Your task to perform on an android device: toggle translation in the chrome app Image 0: 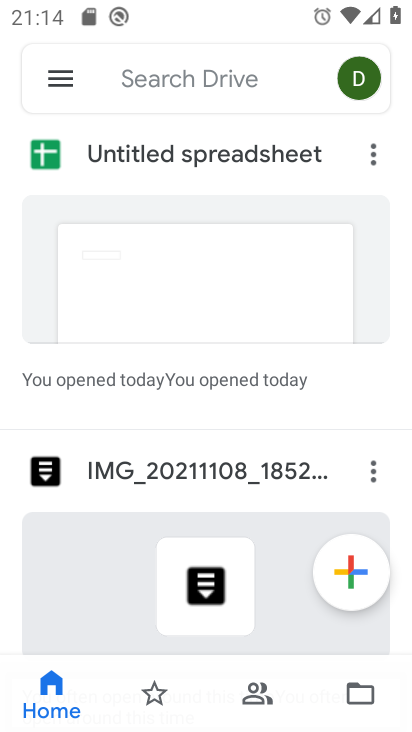
Step 0: press home button
Your task to perform on an android device: toggle translation in the chrome app Image 1: 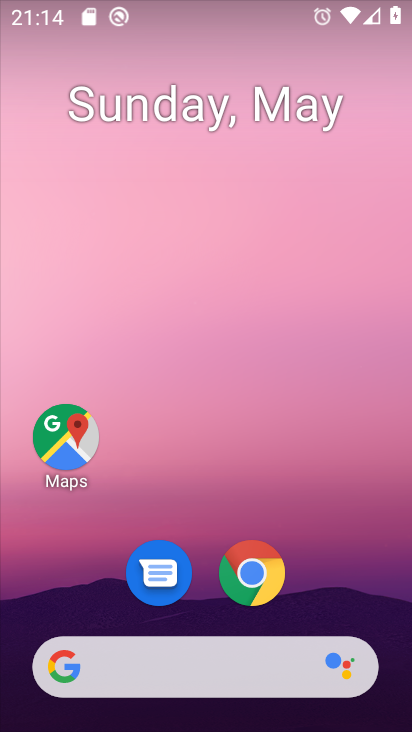
Step 1: click (244, 570)
Your task to perform on an android device: toggle translation in the chrome app Image 2: 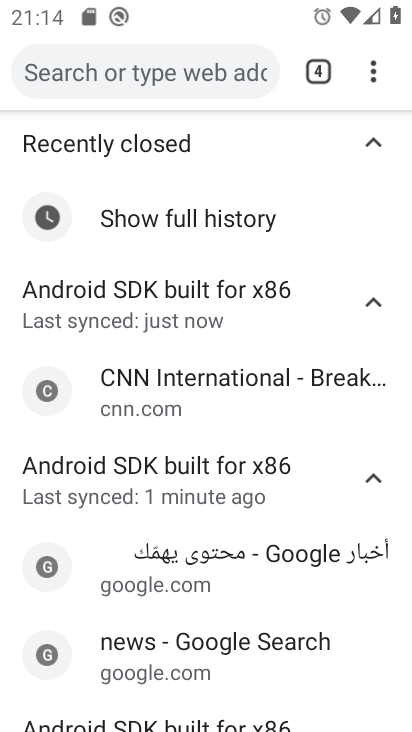
Step 2: click (370, 73)
Your task to perform on an android device: toggle translation in the chrome app Image 3: 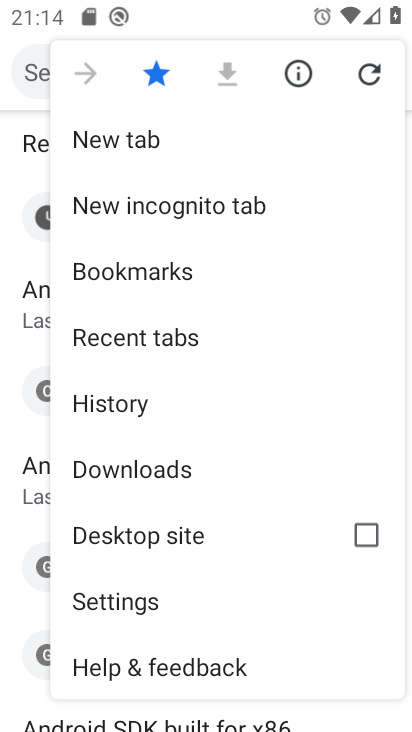
Step 3: click (175, 598)
Your task to perform on an android device: toggle translation in the chrome app Image 4: 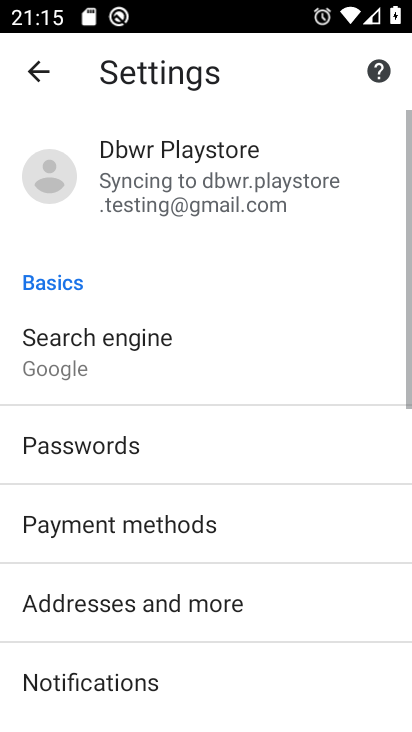
Step 4: drag from (260, 495) to (274, 90)
Your task to perform on an android device: toggle translation in the chrome app Image 5: 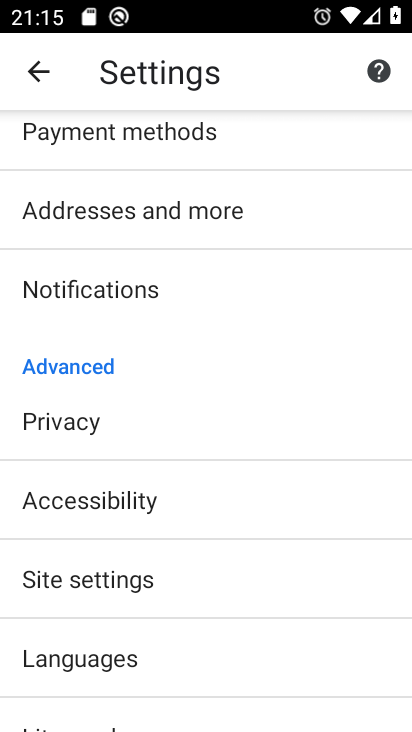
Step 5: click (205, 648)
Your task to perform on an android device: toggle translation in the chrome app Image 6: 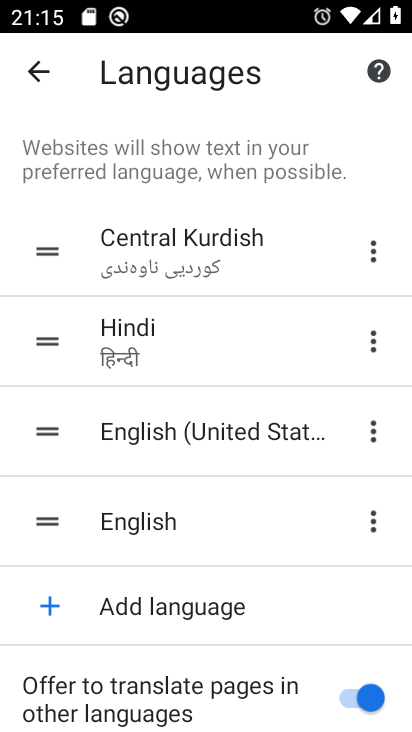
Step 6: click (352, 680)
Your task to perform on an android device: toggle translation in the chrome app Image 7: 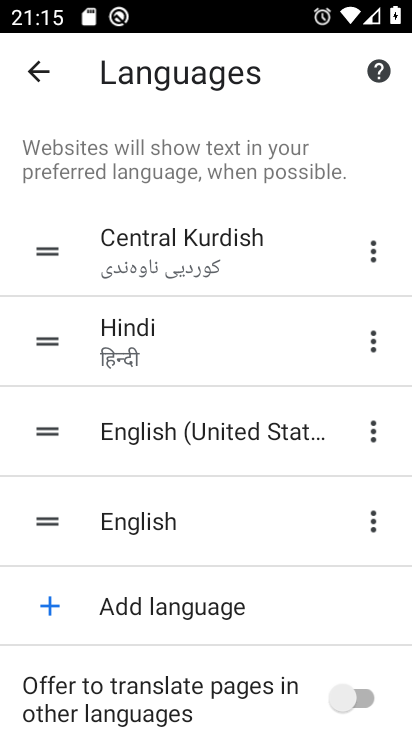
Step 7: task complete